Your task to perform on an android device: Google the capital of Colombia Image 0: 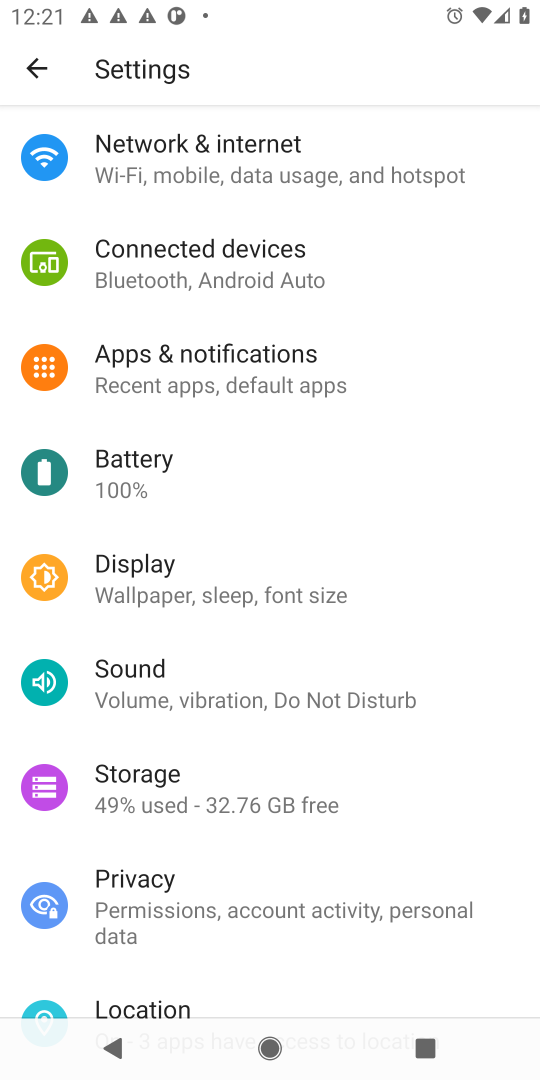
Step 0: press home button
Your task to perform on an android device: Google the capital of Colombia Image 1: 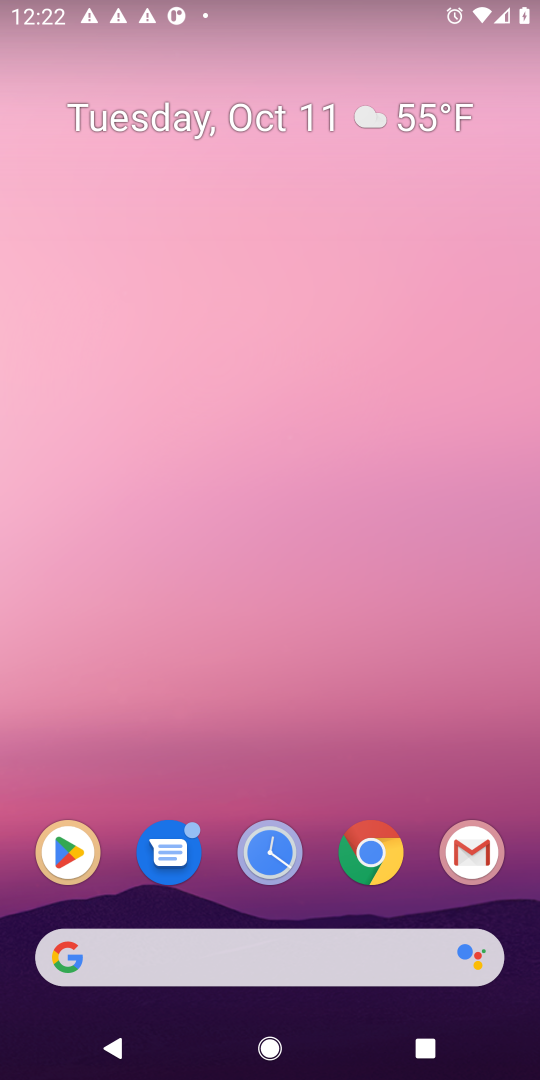
Step 1: click (358, 862)
Your task to perform on an android device: Google the capital of Colombia Image 2: 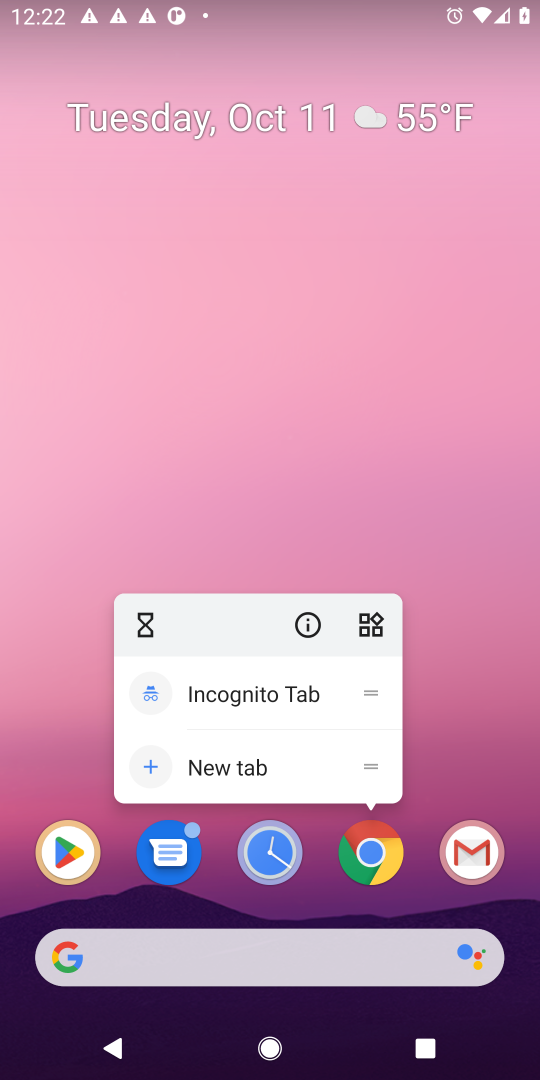
Step 2: click (369, 855)
Your task to perform on an android device: Google the capital of Colombia Image 3: 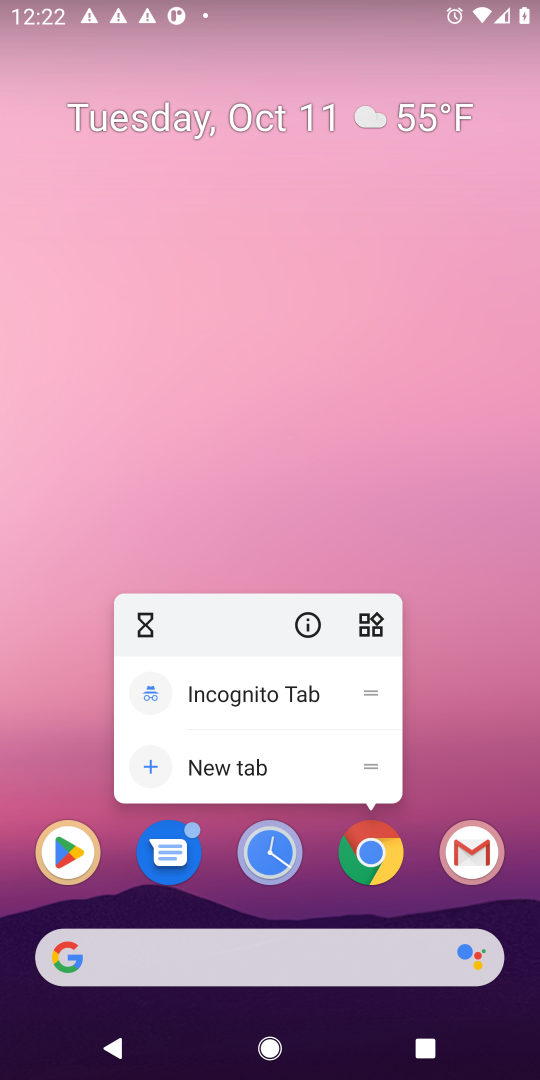
Step 3: click (369, 855)
Your task to perform on an android device: Google the capital of Colombia Image 4: 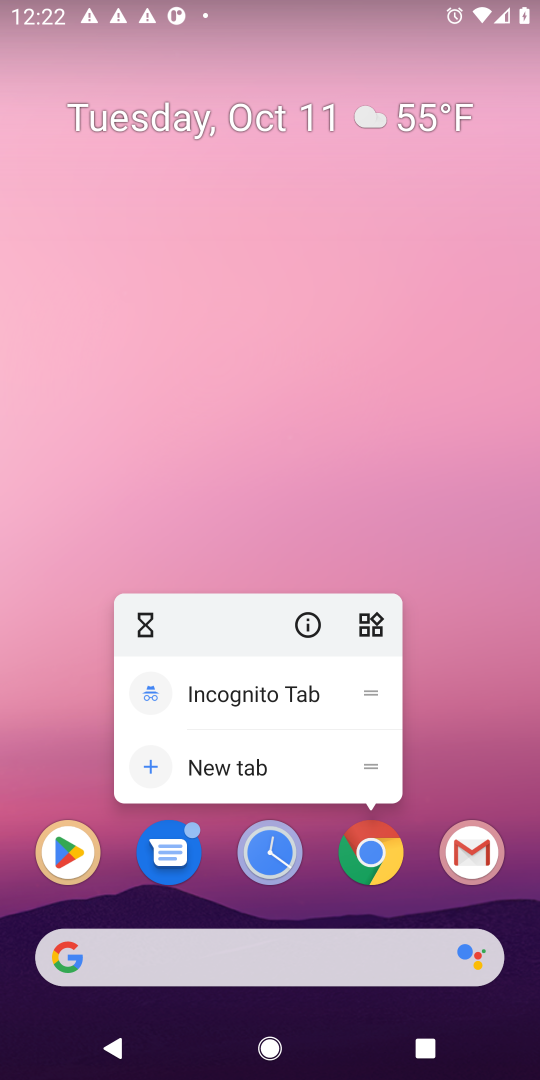
Step 4: click (369, 855)
Your task to perform on an android device: Google the capital of Colombia Image 5: 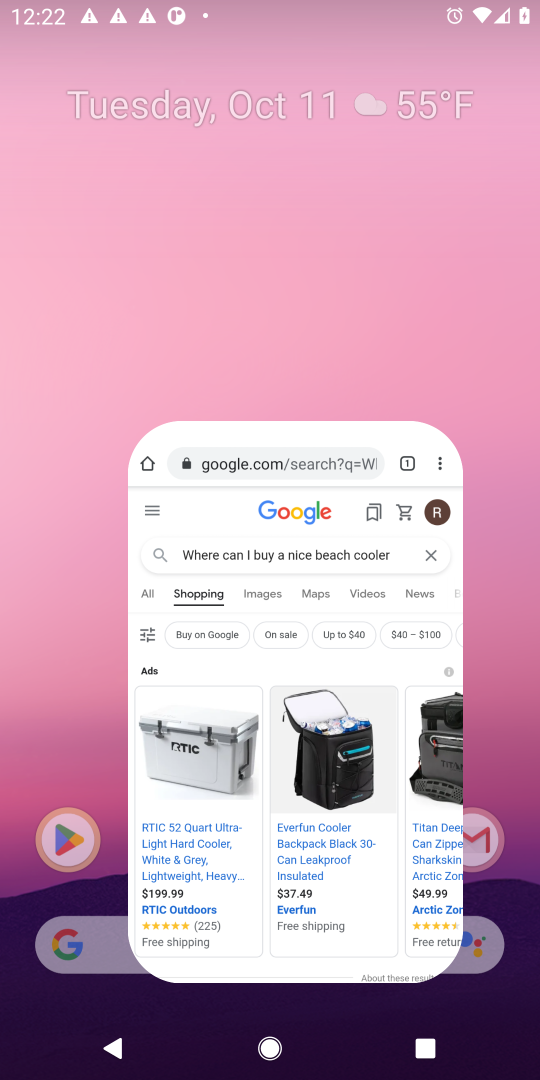
Step 5: click (369, 855)
Your task to perform on an android device: Google the capital of Colombia Image 6: 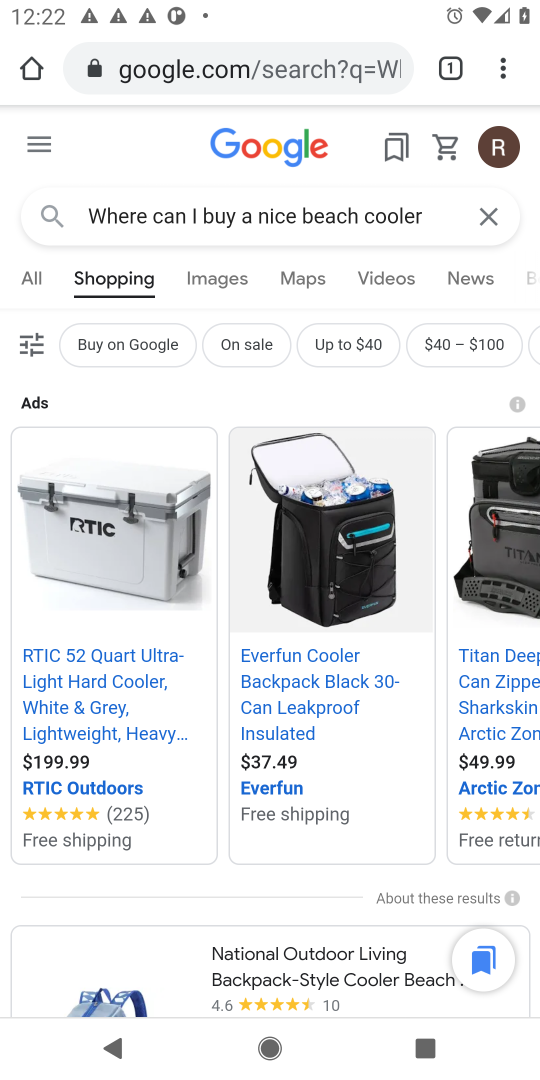
Step 6: click (251, 77)
Your task to perform on an android device: Google the capital of Colombia Image 7: 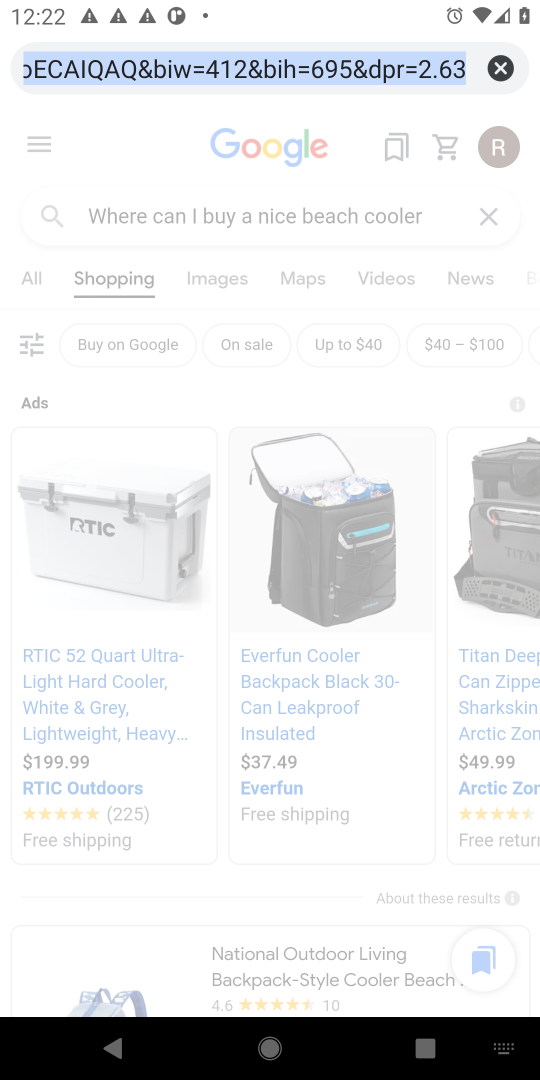
Step 7: type "capital of Colombia"
Your task to perform on an android device: Google the capital of Colombia Image 8: 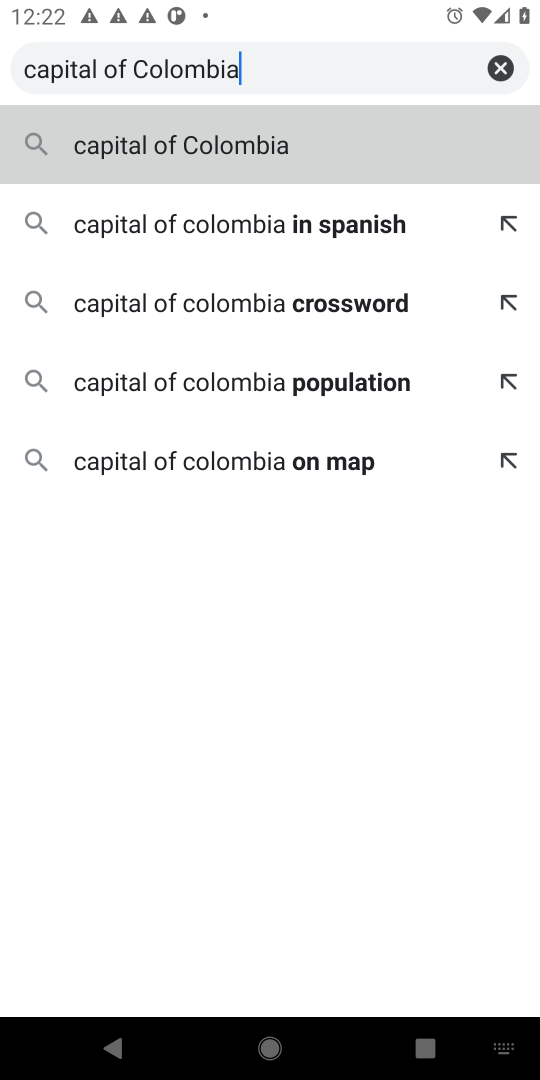
Step 8: click (451, 161)
Your task to perform on an android device: Google the capital of Colombia Image 9: 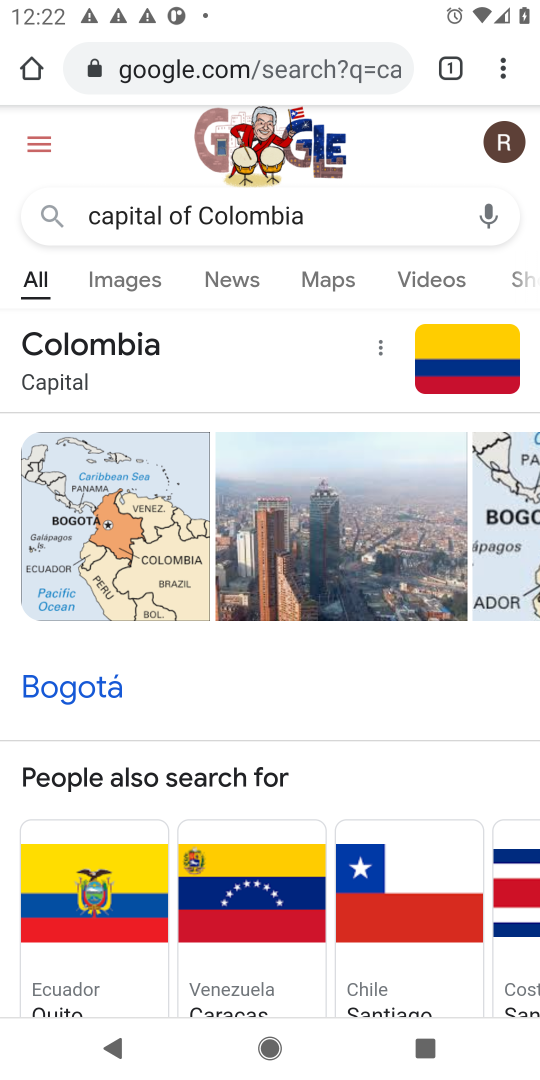
Step 9: task complete